Your task to perform on an android device: change notification settings in the gmail app Image 0: 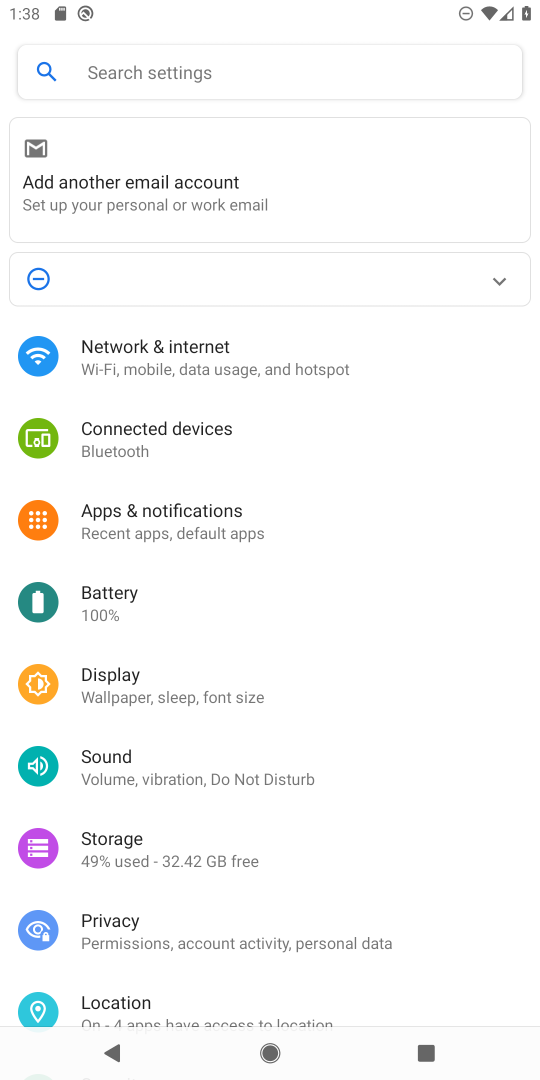
Step 0: press home button
Your task to perform on an android device: change notification settings in the gmail app Image 1: 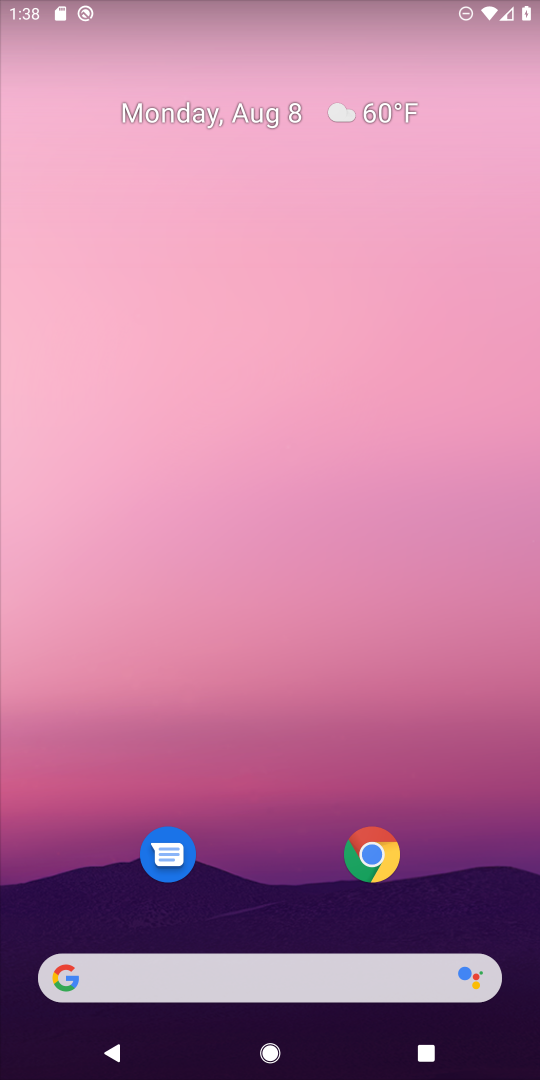
Step 1: drag from (286, 895) to (321, 0)
Your task to perform on an android device: change notification settings in the gmail app Image 2: 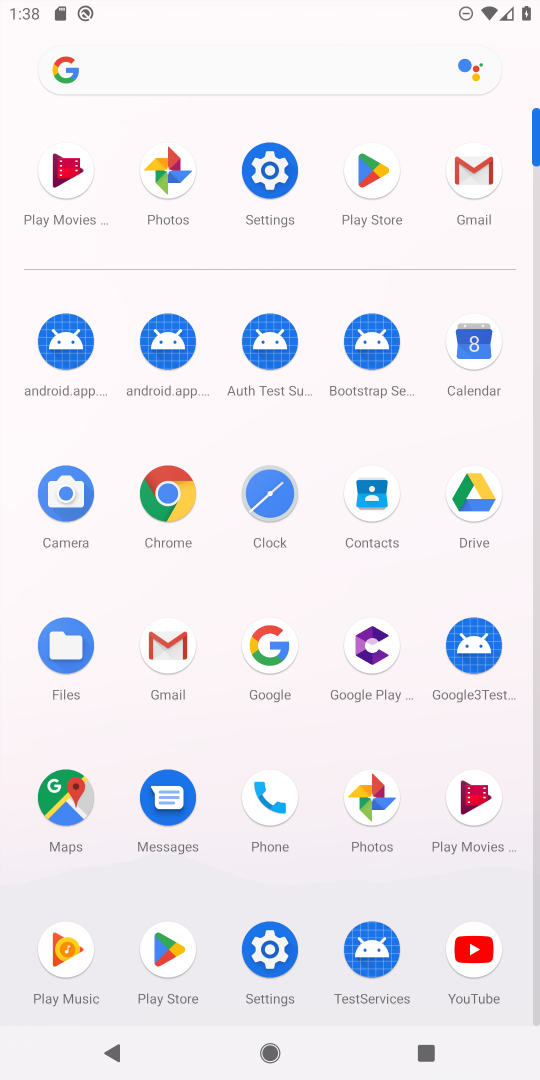
Step 2: click (479, 163)
Your task to perform on an android device: change notification settings in the gmail app Image 3: 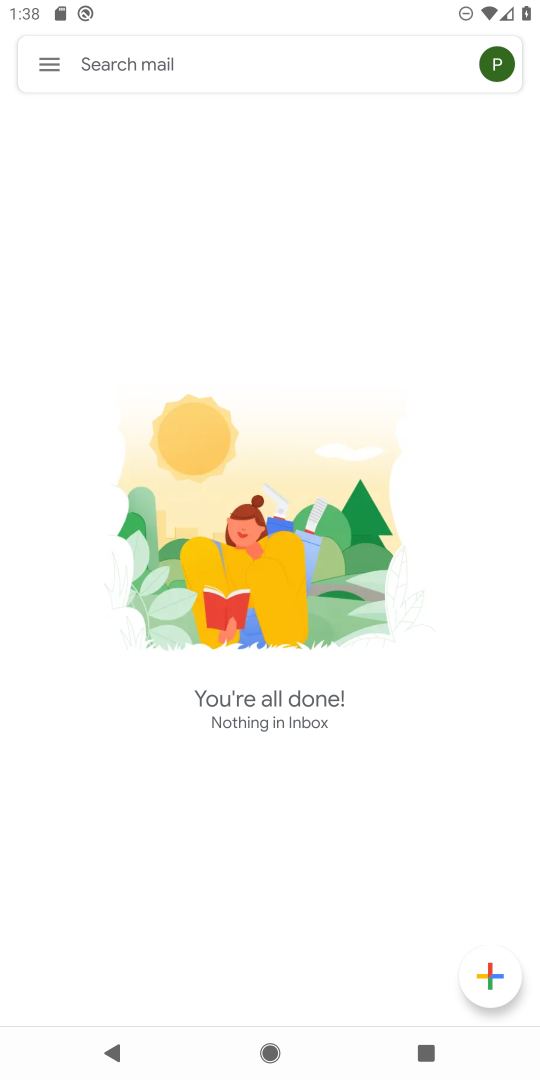
Step 3: click (58, 64)
Your task to perform on an android device: change notification settings in the gmail app Image 4: 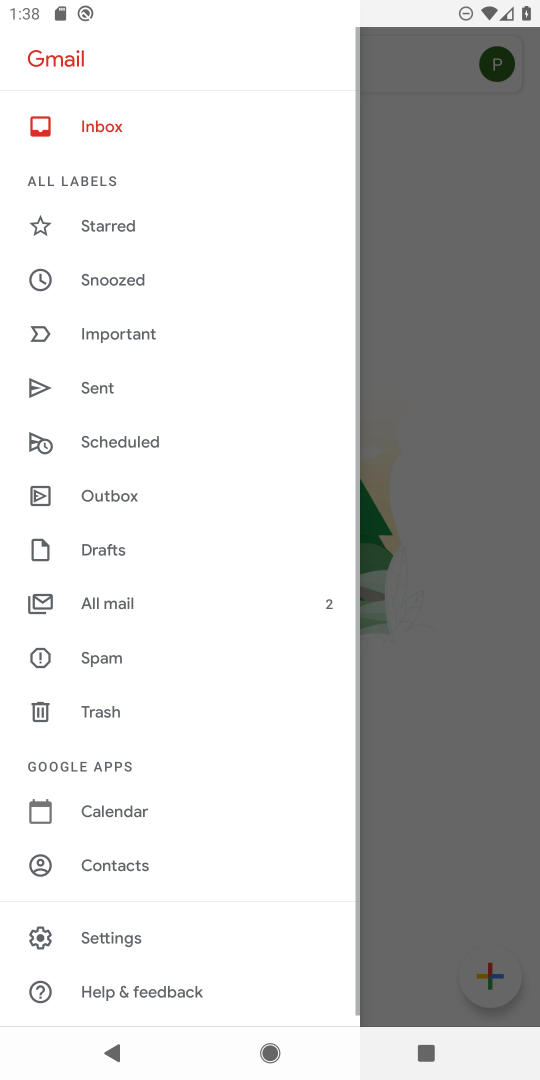
Step 4: click (145, 940)
Your task to perform on an android device: change notification settings in the gmail app Image 5: 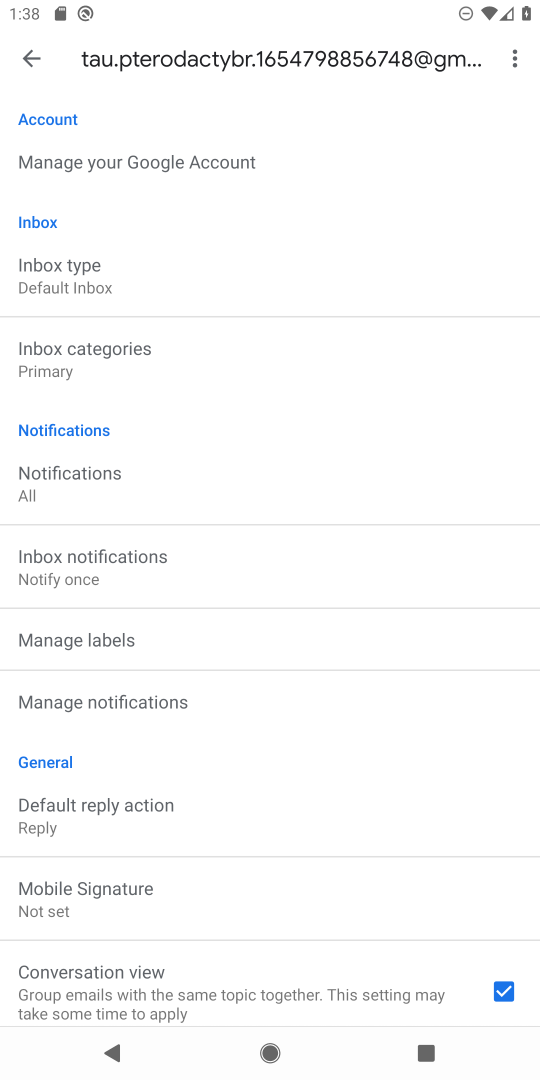
Step 5: click (80, 702)
Your task to perform on an android device: change notification settings in the gmail app Image 6: 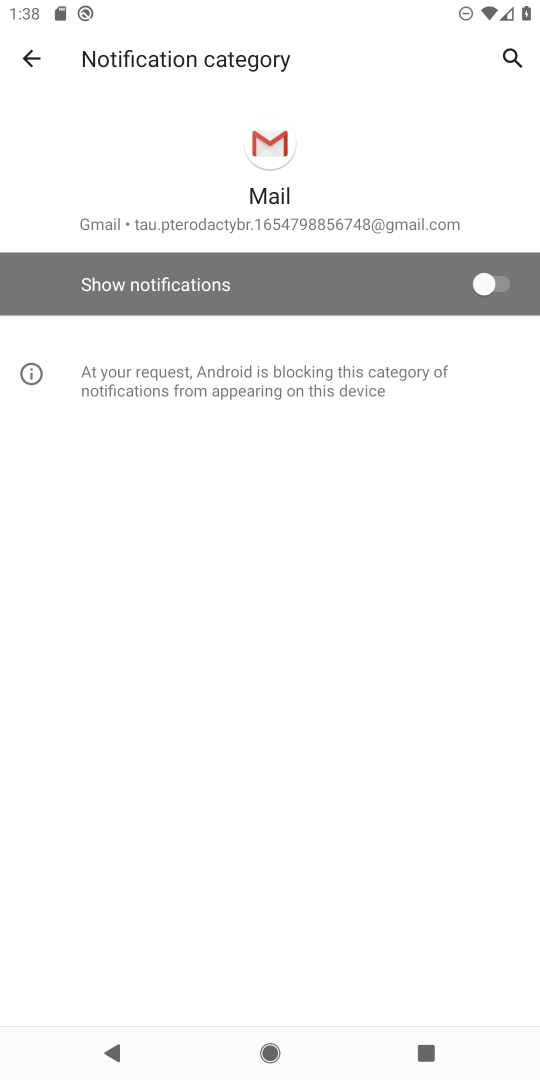
Step 6: click (495, 289)
Your task to perform on an android device: change notification settings in the gmail app Image 7: 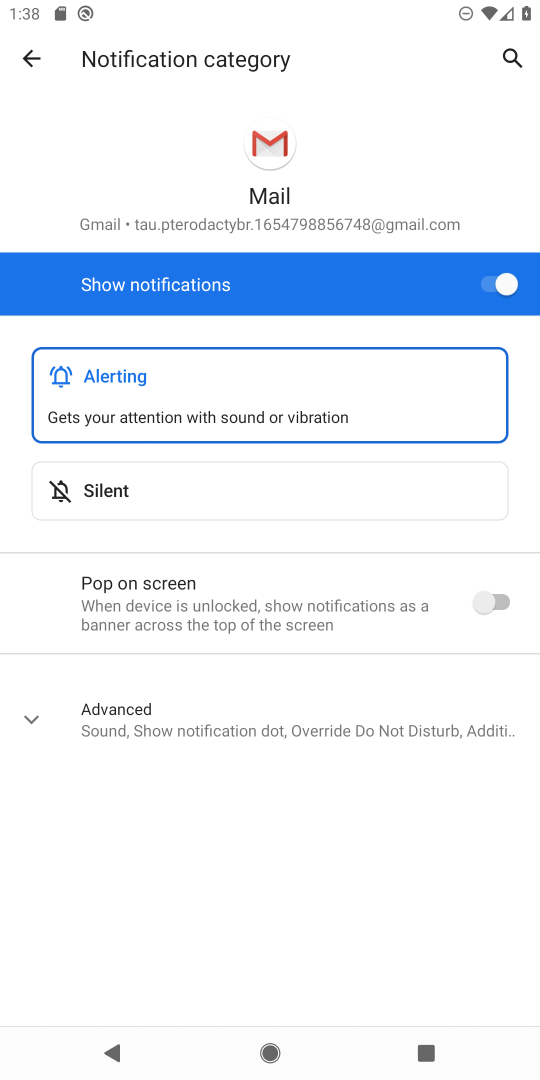
Step 7: task complete